Your task to perform on an android device: open sync settings in chrome Image 0: 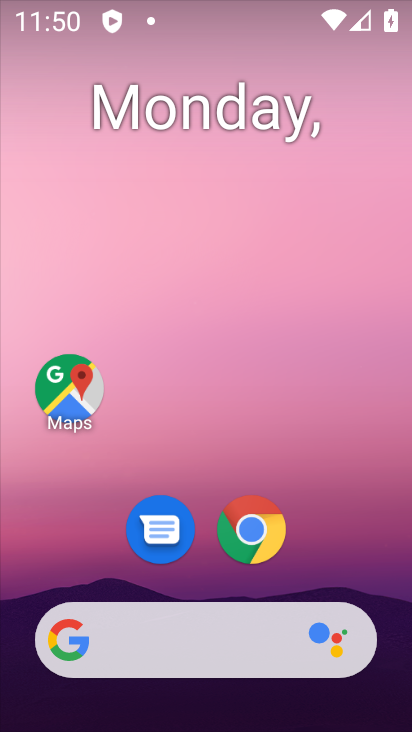
Step 0: drag from (362, 594) to (214, 10)
Your task to perform on an android device: open sync settings in chrome Image 1: 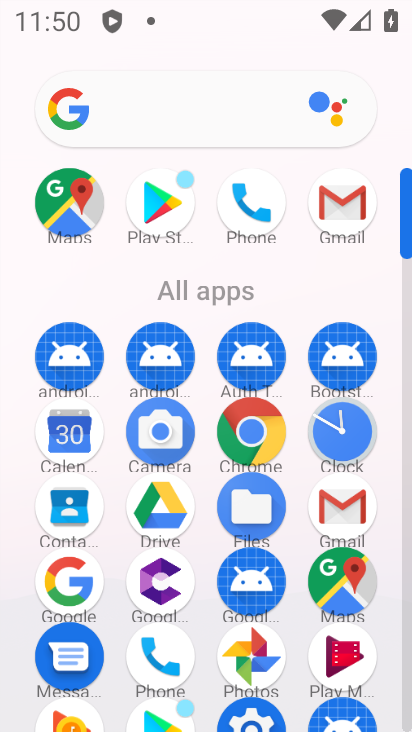
Step 1: click (277, 428)
Your task to perform on an android device: open sync settings in chrome Image 2: 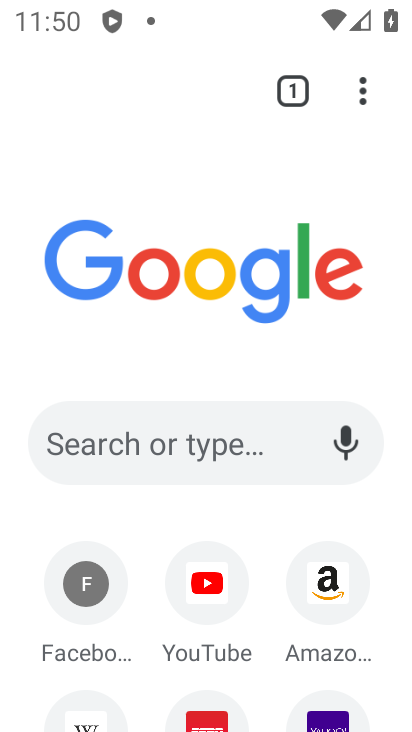
Step 2: drag from (367, 70) to (209, 557)
Your task to perform on an android device: open sync settings in chrome Image 3: 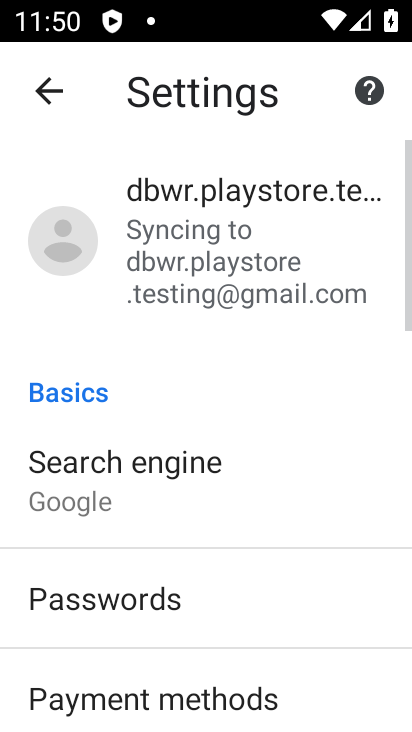
Step 3: drag from (102, 697) to (126, 183)
Your task to perform on an android device: open sync settings in chrome Image 4: 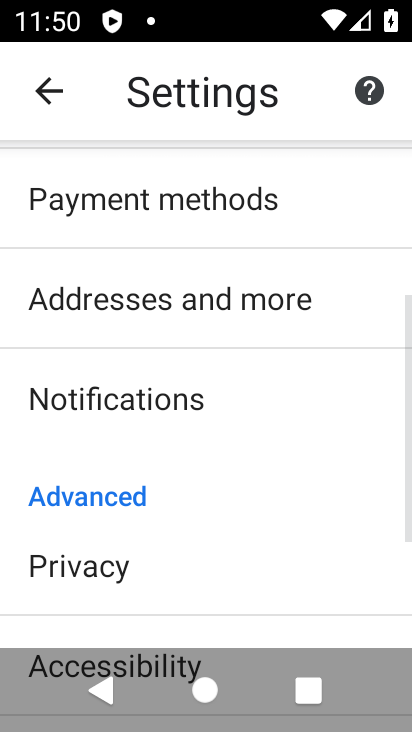
Step 4: drag from (196, 467) to (240, 12)
Your task to perform on an android device: open sync settings in chrome Image 5: 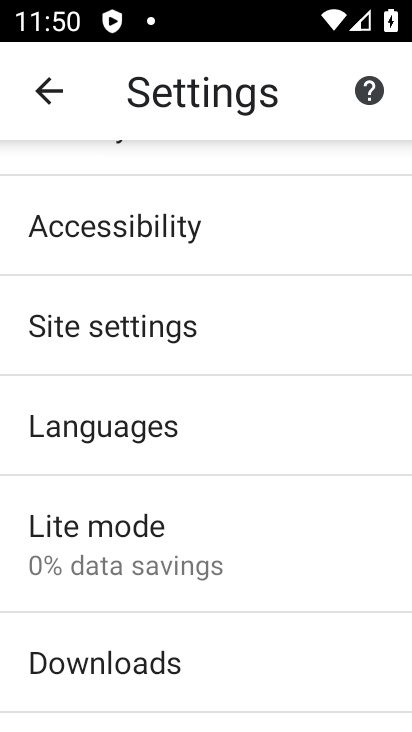
Step 5: drag from (284, 216) to (234, 685)
Your task to perform on an android device: open sync settings in chrome Image 6: 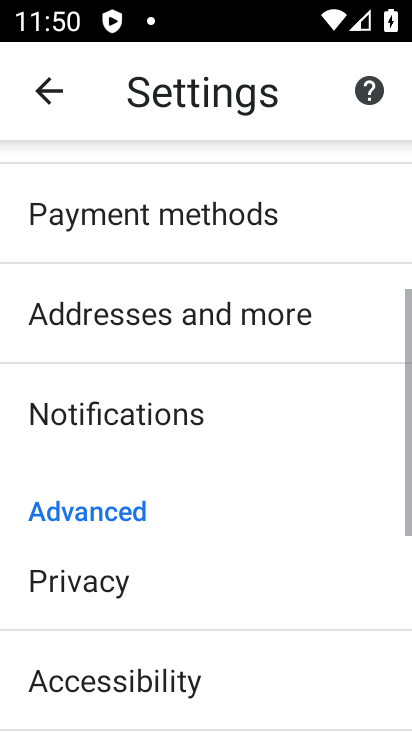
Step 6: drag from (196, 118) to (208, 701)
Your task to perform on an android device: open sync settings in chrome Image 7: 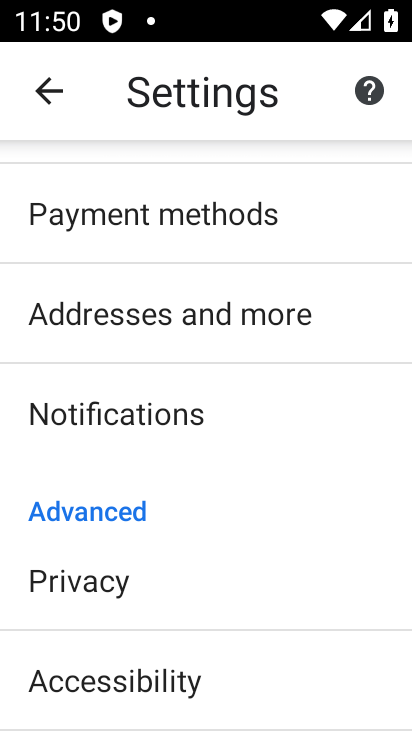
Step 7: drag from (196, 390) to (212, 724)
Your task to perform on an android device: open sync settings in chrome Image 8: 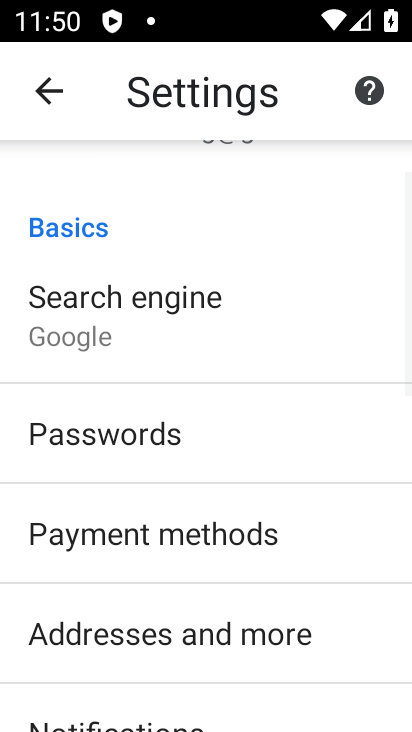
Step 8: drag from (190, 302) to (210, 727)
Your task to perform on an android device: open sync settings in chrome Image 9: 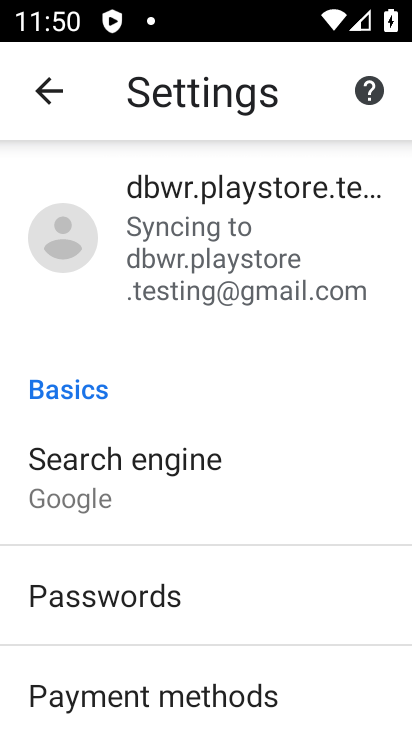
Step 9: click (188, 243)
Your task to perform on an android device: open sync settings in chrome Image 10: 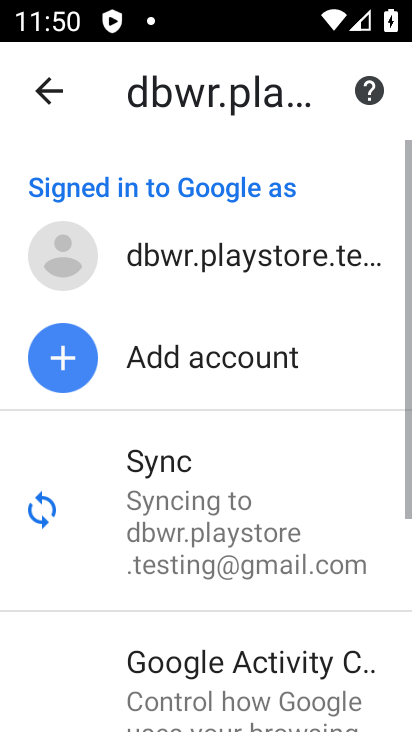
Step 10: click (237, 560)
Your task to perform on an android device: open sync settings in chrome Image 11: 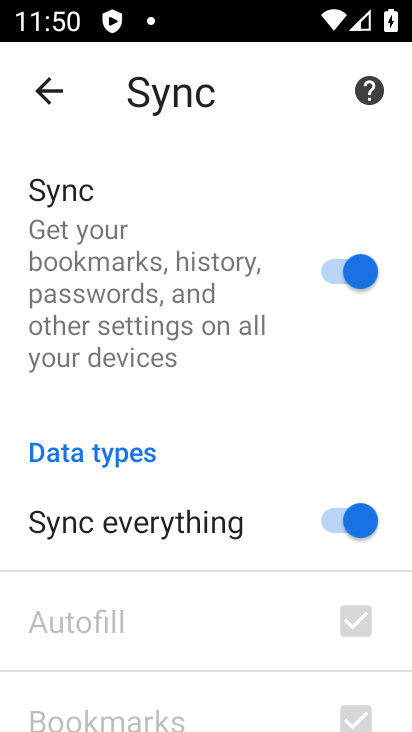
Step 11: task complete